Your task to perform on an android device: Show me popular games on the Play Store Image 0: 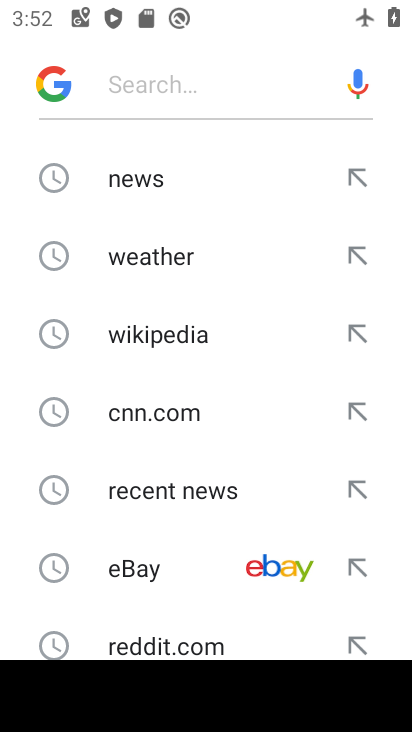
Step 0: press back button
Your task to perform on an android device: Show me popular games on the Play Store Image 1: 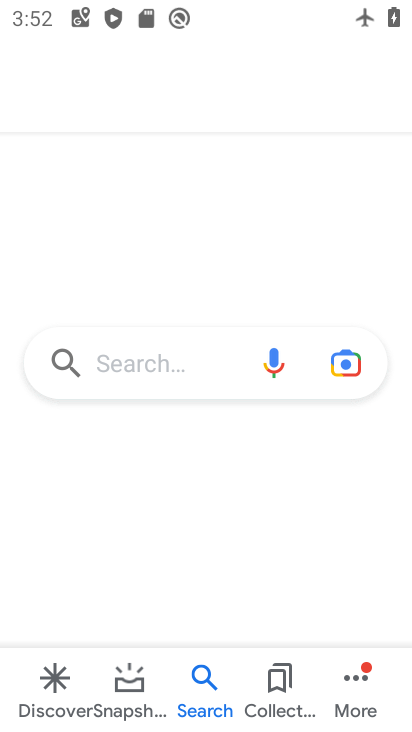
Step 1: press back button
Your task to perform on an android device: Show me popular games on the Play Store Image 2: 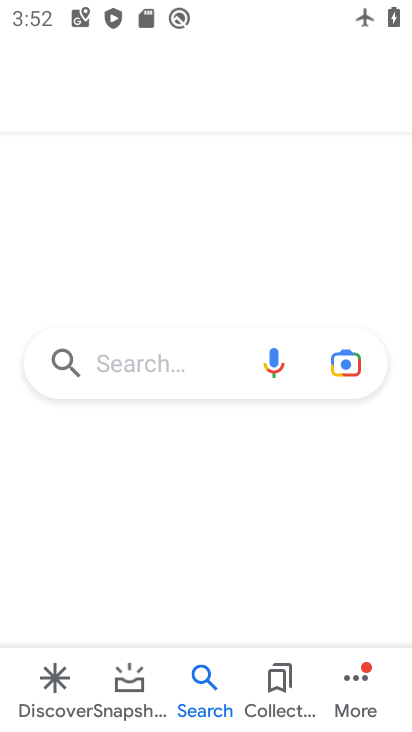
Step 2: press back button
Your task to perform on an android device: Show me popular games on the Play Store Image 3: 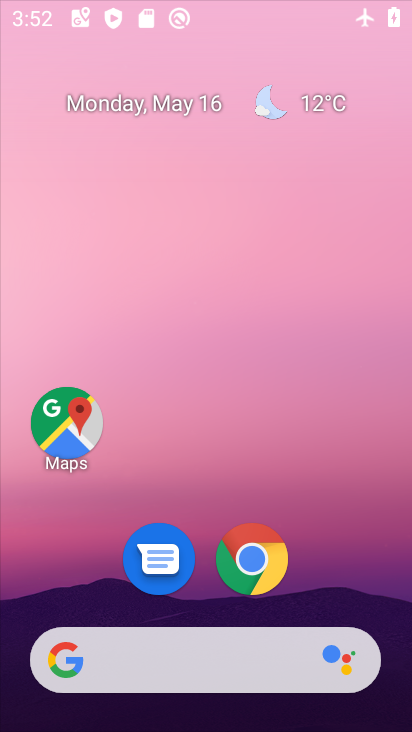
Step 3: press back button
Your task to perform on an android device: Show me popular games on the Play Store Image 4: 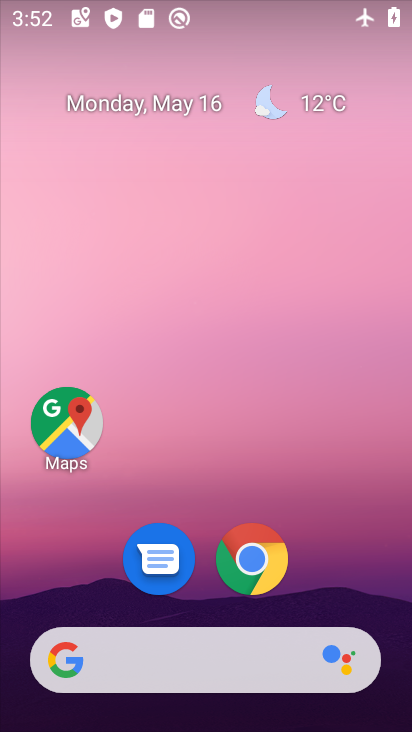
Step 4: click (316, 579)
Your task to perform on an android device: Show me popular games on the Play Store Image 5: 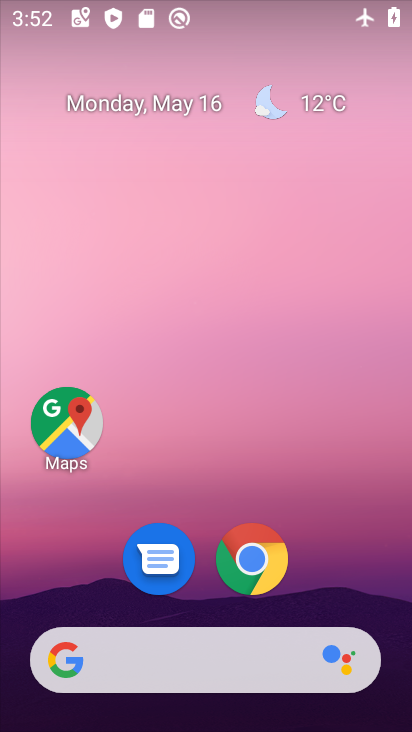
Step 5: drag from (316, 579) to (323, 7)
Your task to perform on an android device: Show me popular games on the Play Store Image 6: 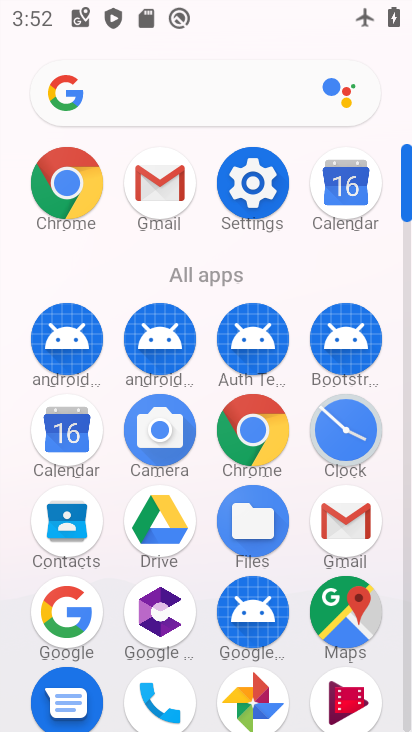
Step 6: click (405, 710)
Your task to perform on an android device: Show me popular games on the Play Store Image 7: 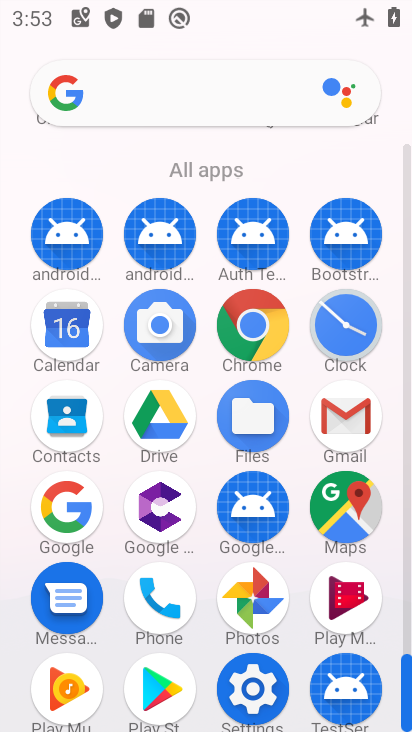
Step 7: click (179, 687)
Your task to perform on an android device: Show me popular games on the Play Store Image 8: 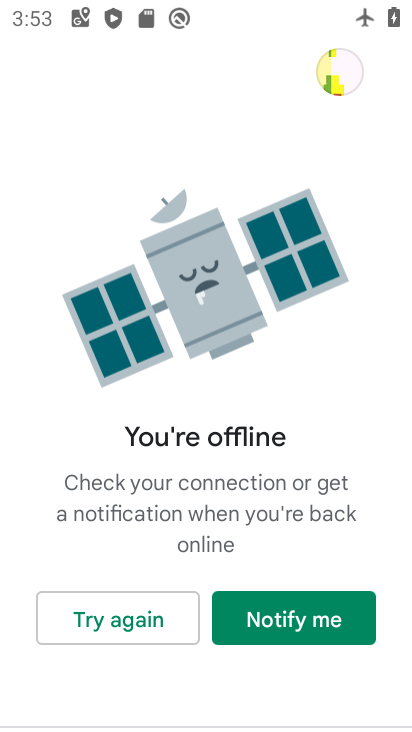
Step 8: click (153, 617)
Your task to perform on an android device: Show me popular games on the Play Store Image 9: 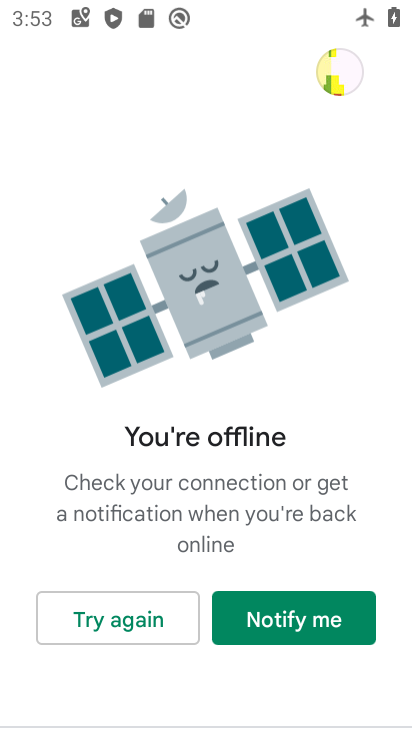
Step 9: click (153, 617)
Your task to perform on an android device: Show me popular games on the Play Store Image 10: 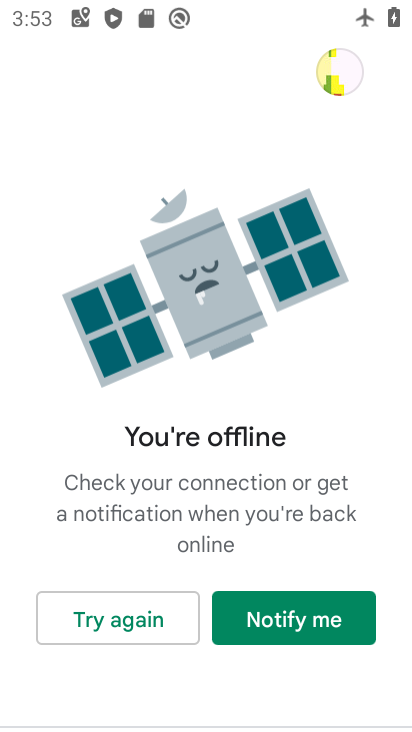
Step 10: task complete